Your task to perform on an android device: open a new tab in the chrome app Image 0: 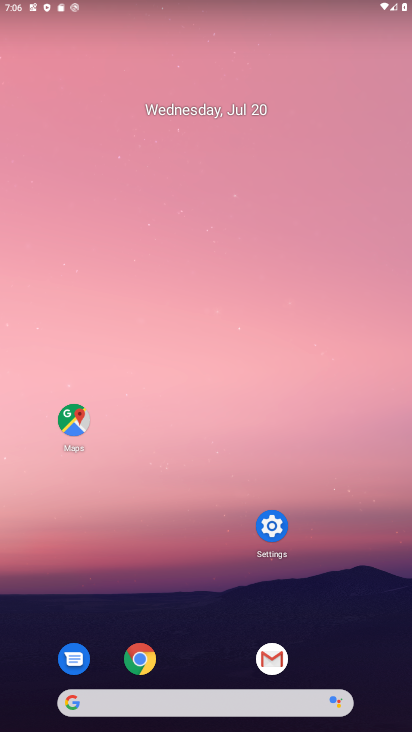
Step 0: click (157, 657)
Your task to perform on an android device: open a new tab in the chrome app Image 1: 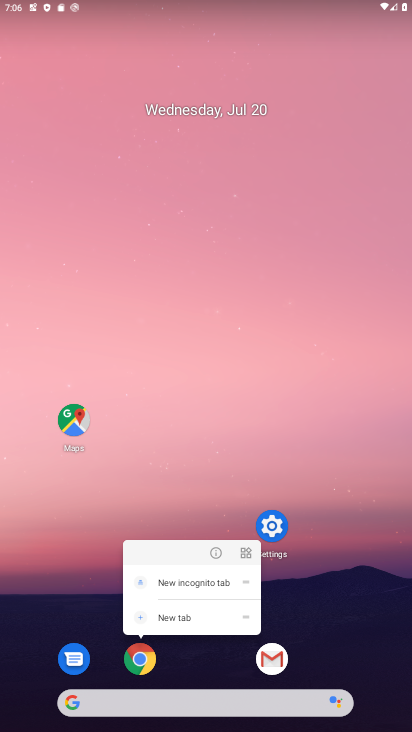
Step 1: click (145, 657)
Your task to perform on an android device: open a new tab in the chrome app Image 2: 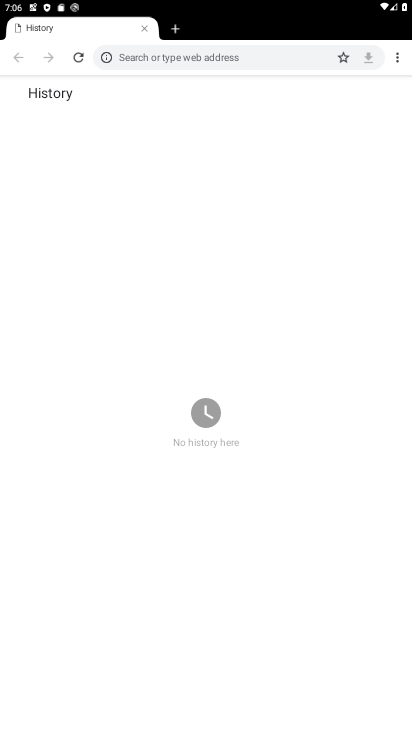
Step 2: click (177, 29)
Your task to perform on an android device: open a new tab in the chrome app Image 3: 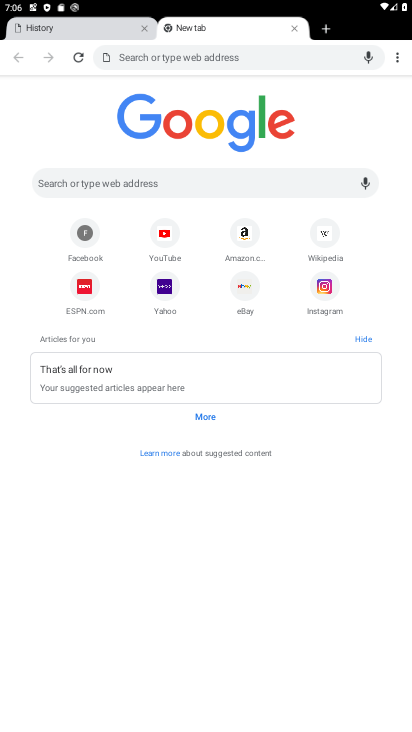
Step 3: task complete